Your task to perform on an android device: What's on my calendar today? Image 0: 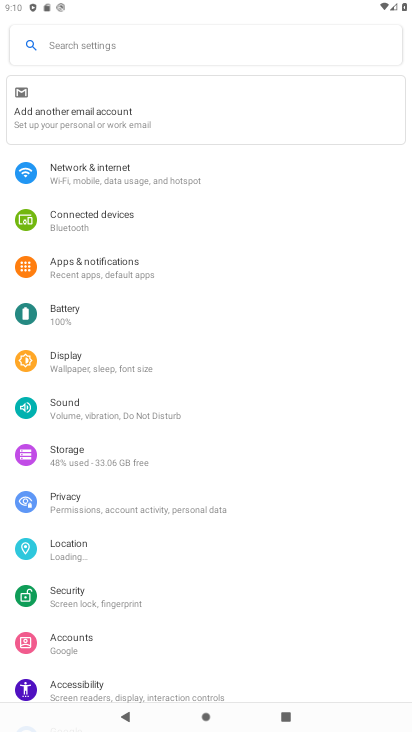
Step 0: press home button
Your task to perform on an android device: What's on my calendar today? Image 1: 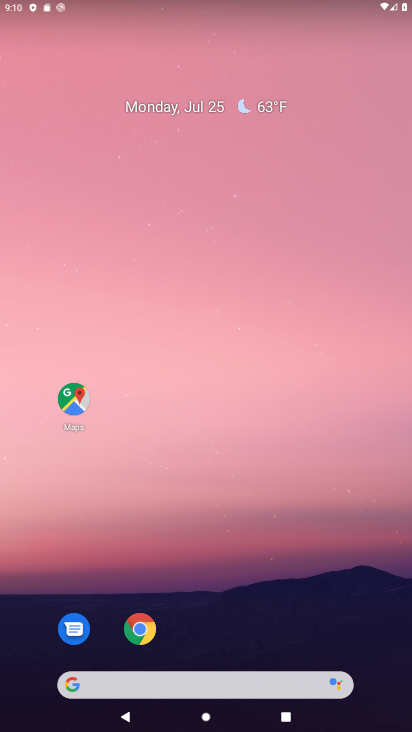
Step 1: click (262, 17)
Your task to perform on an android device: What's on my calendar today? Image 2: 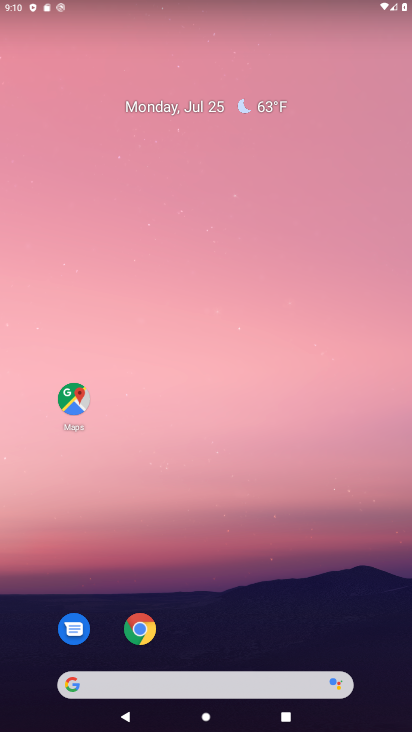
Step 2: drag from (279, 582) to (274, 0)
Your task to perform on an android device: What's on my calendar today? Image 3: 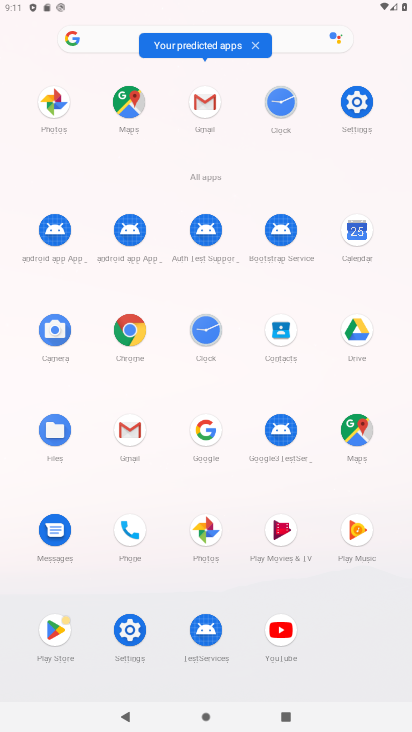
Step 3: click (345, 234)
Your task to perform on an android device: What's on my calendar today? Image 4: 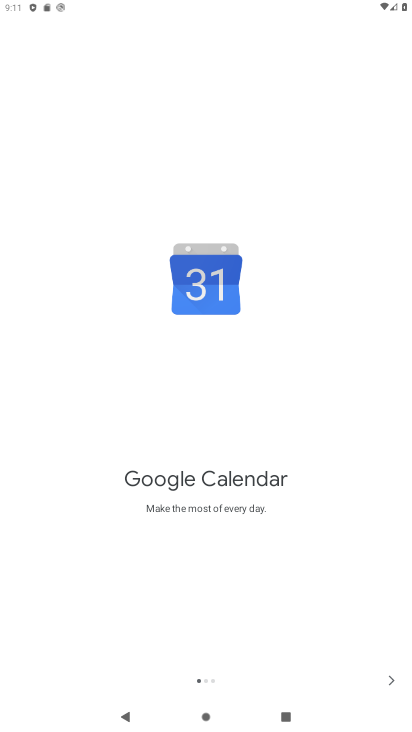
Step 4: click (395, 676)
Your task to perform on an android device: What's on my calendar today? Image 5: 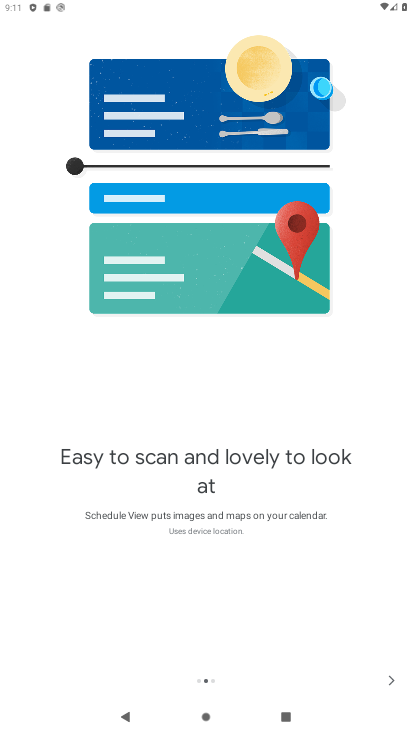
Step 5: click (395, 676)
Your task to perform on an android device: What's on my calendar today? Image 6: 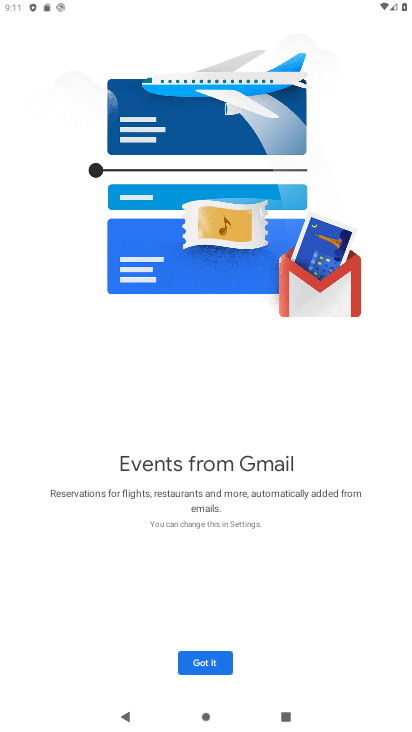
Step 6: click (209, 661)
Your task to perform on an android device: What's on my calendar today? Image 7: 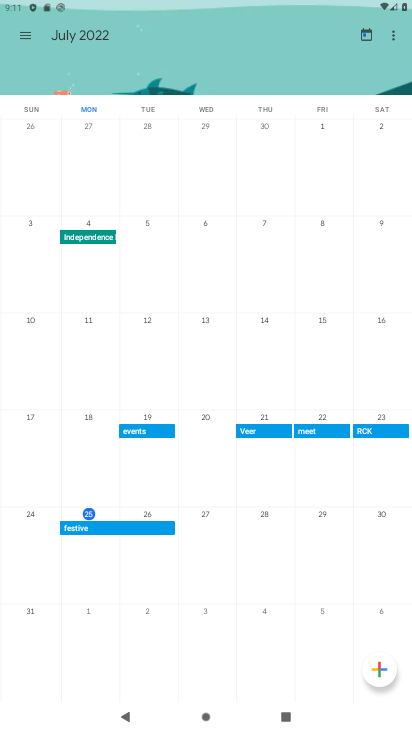
Step 7: click (97, 539)
Your task to perform on an android device: What's on my calendar today? Image 8: 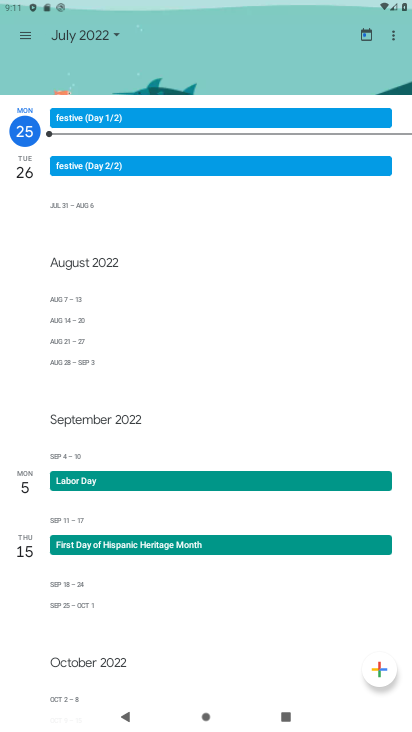
Step 8: task complete